Your task to perform on an android device: turn notification dots on Image 0: 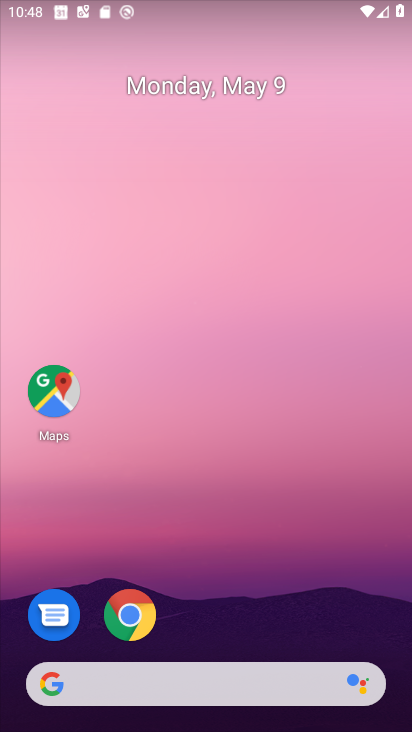
Step 0: drag from (327, 711) to (218, 171)
Your task to perform on an android device: turn notification dots on Image 1: 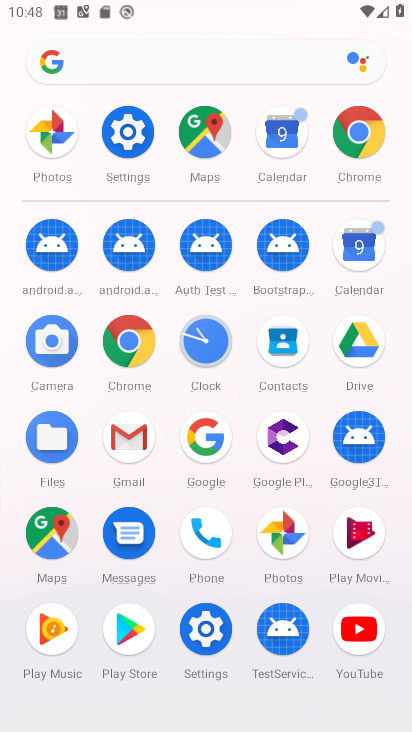
Step 1: click (113, 132)
Your task to perform on an android device: turn notification dots on Image 2: 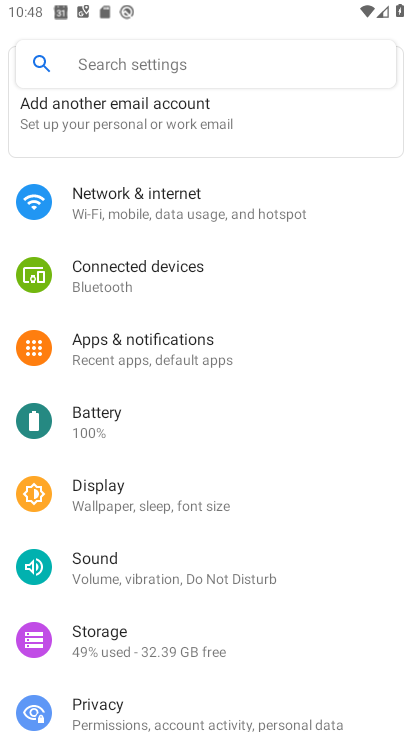
Step 2: click (185, 49)
Your task to perform on an android device: turn notification dots on Image 3: 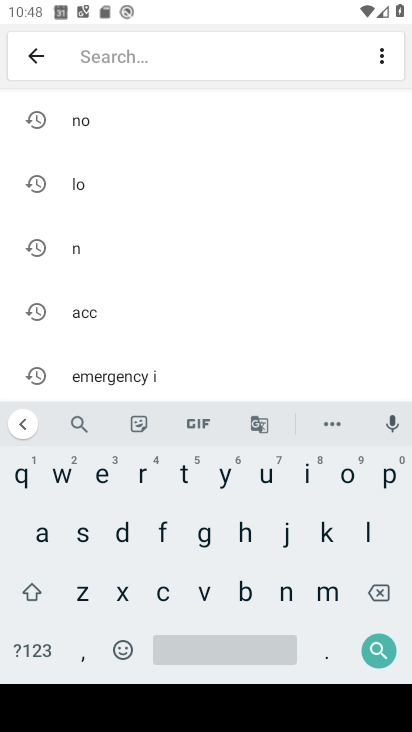
Step 3: click (123, 540)
Your task to perform on an android device: turn notification dots on Image 4: 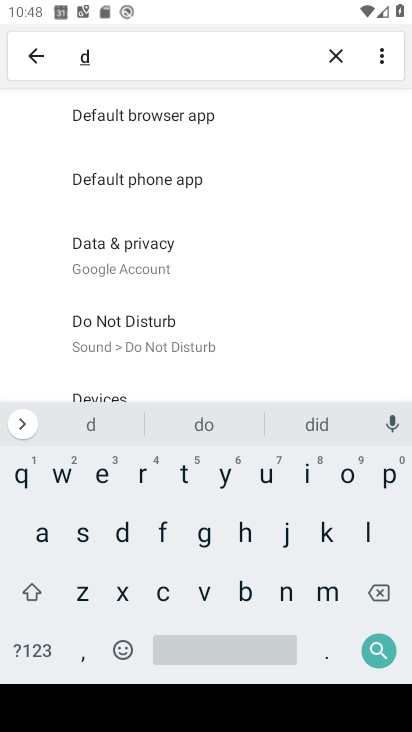
Step 4: click (338, 476)
Your task to perform on an android device: turn notification dots on Image 5: 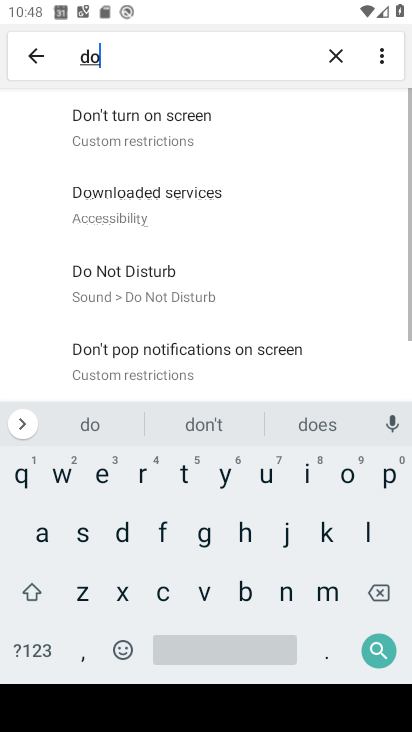
Step 5: click (185, 478)
Your task to perform on an android device: turn notification dots on Image 6: 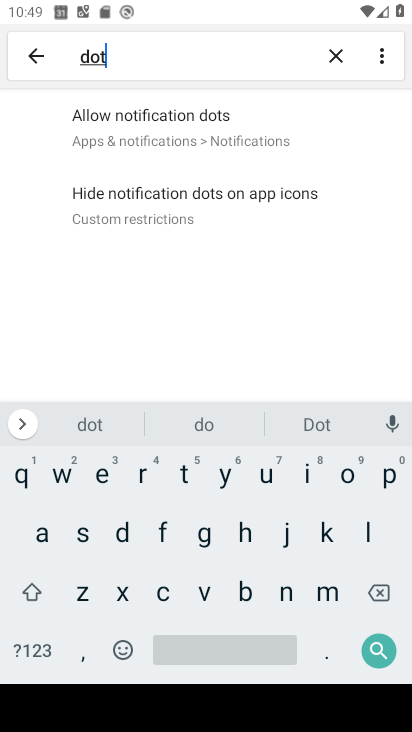
Step 6: click (199, 119)
Your task to perform on an android device: turn notification dots on Image 7: 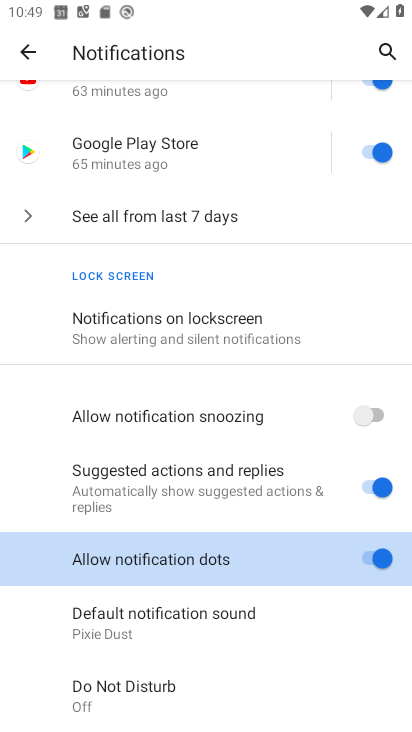
Step 7: click (141, 546)
Your task to perform on an android device: turn notification dots on Image 8: 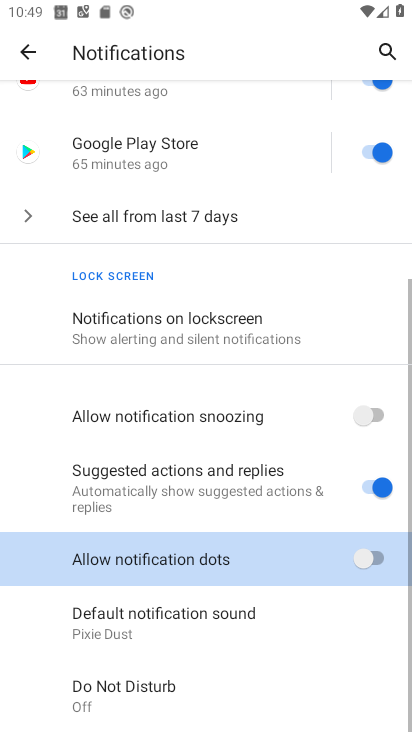
Step 8: click (137, 546)
Your task to perform on an android device: turn notification dots on Image 9: 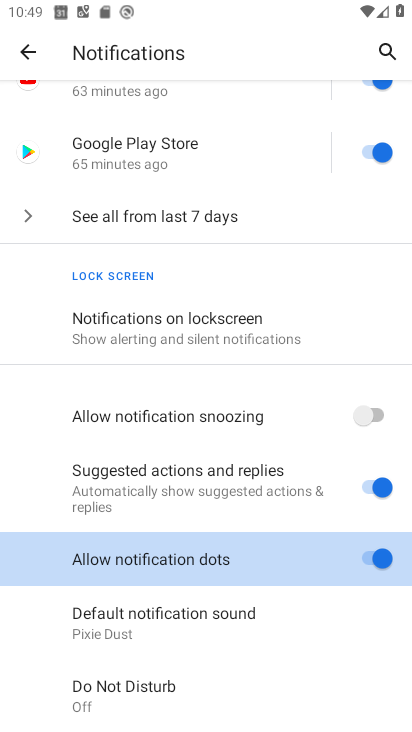
Step 9: task complete